Your task to perform on an android device: open app "DoorDash - Food Delivery" (install if not already installed) Image 0: 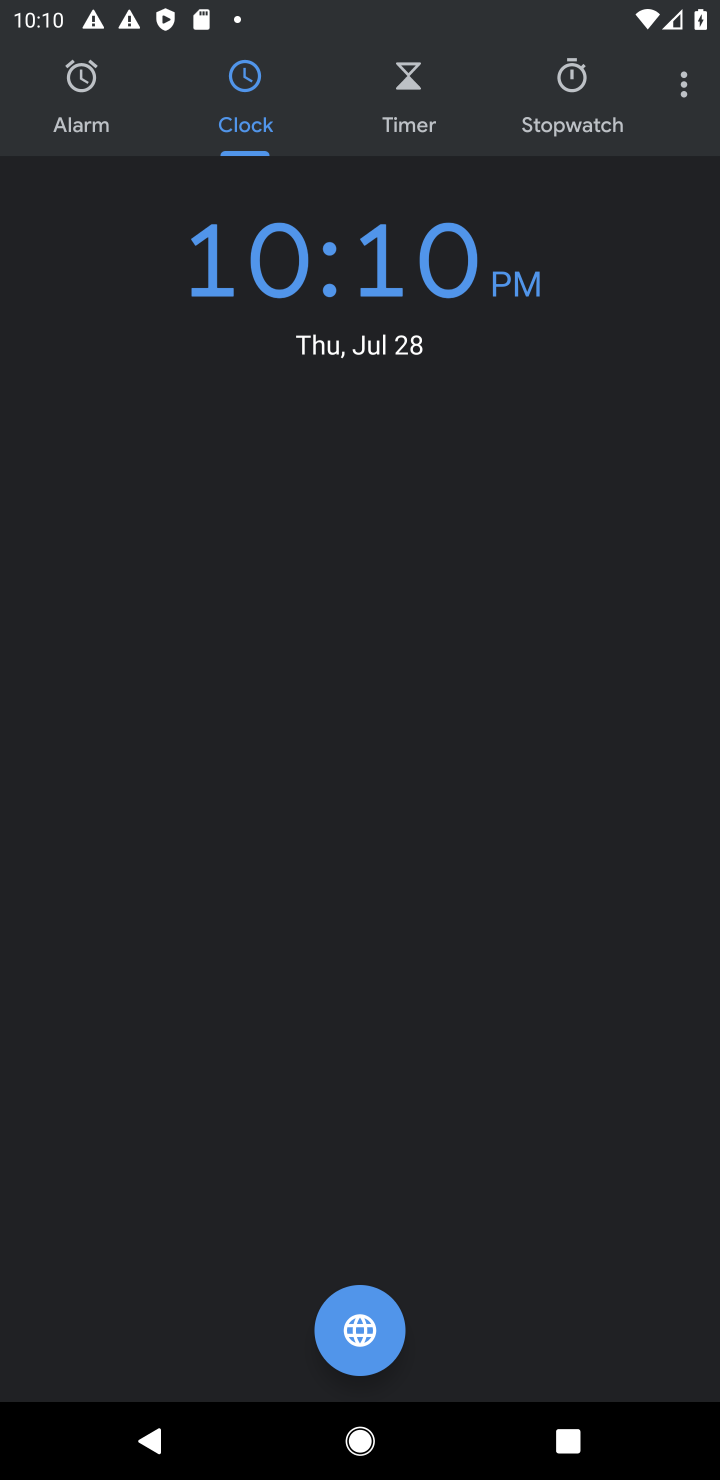
Step 0: press home button
Your task to perform on an android device: open app "DoorDash - Food Delivery" (install if not already installed) Image 1: 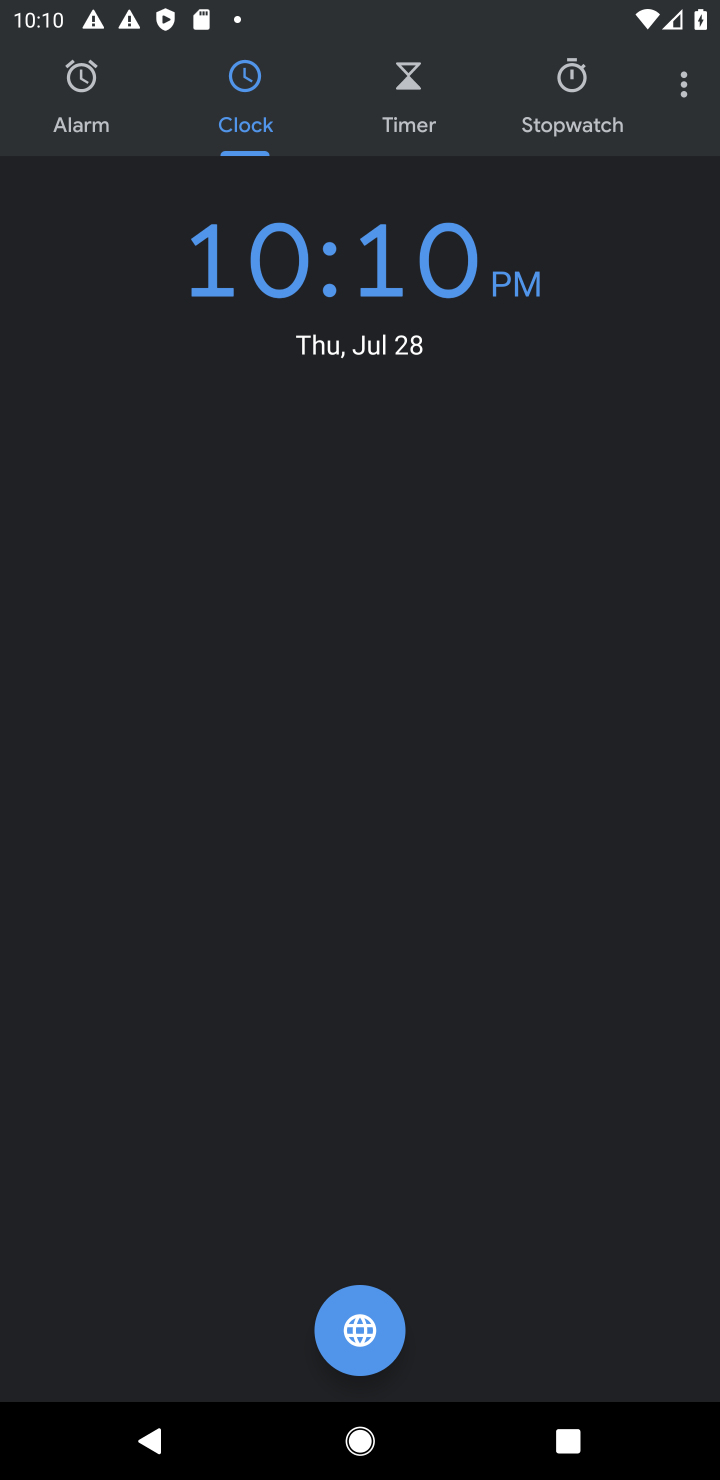
Step 1: drag from (295, 563) to (349, 463)
Your task to perform on an android device: open app "DoorDash - Food Delivery" (install if not already installed) Image 2: 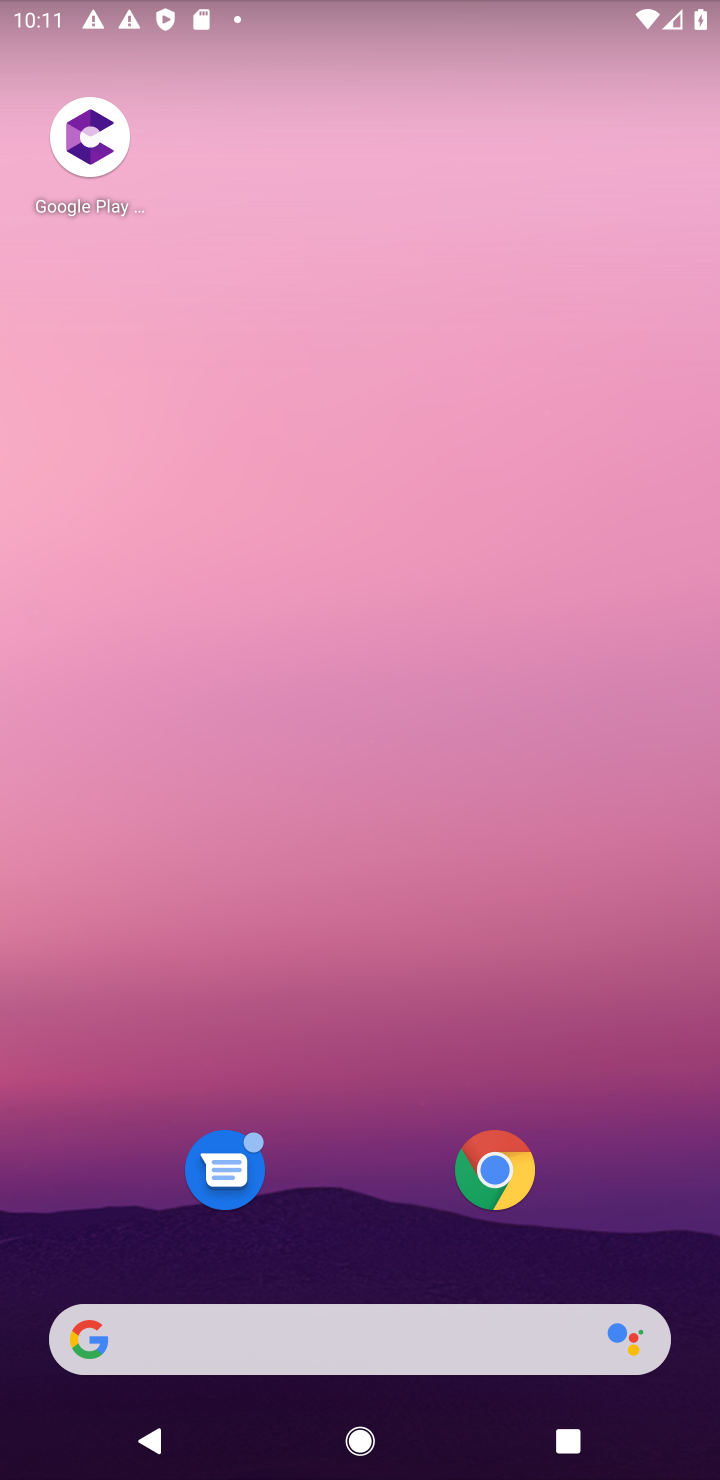
Step 2: press home button
Your task to perform on an android device: open app "DoorDash - Food Delivery" (install if not already installed) Image 3: 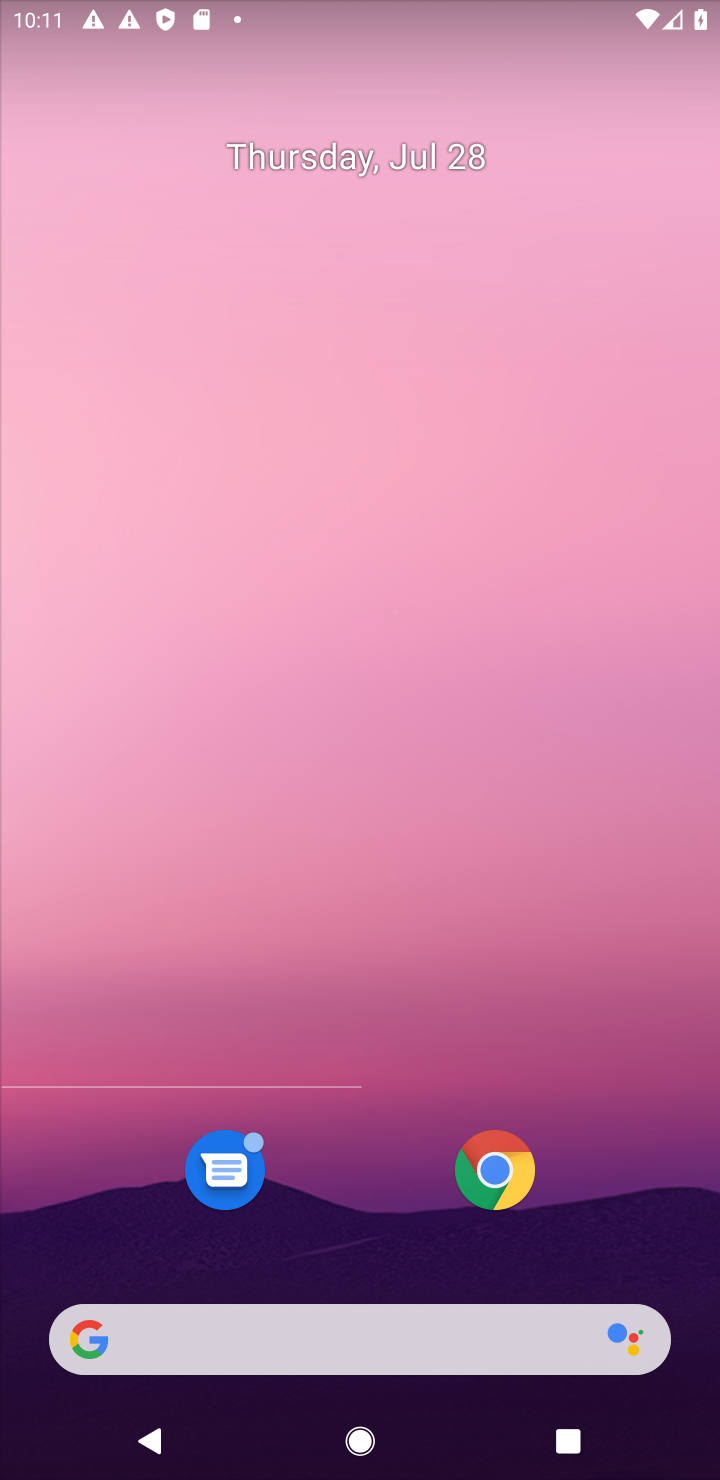
Step 3: drag from (306, 1272) to (334, 202)
Your task to perform on an android device: open app "DoorDash - Food Delivery" (install if not already installed) Image 4: 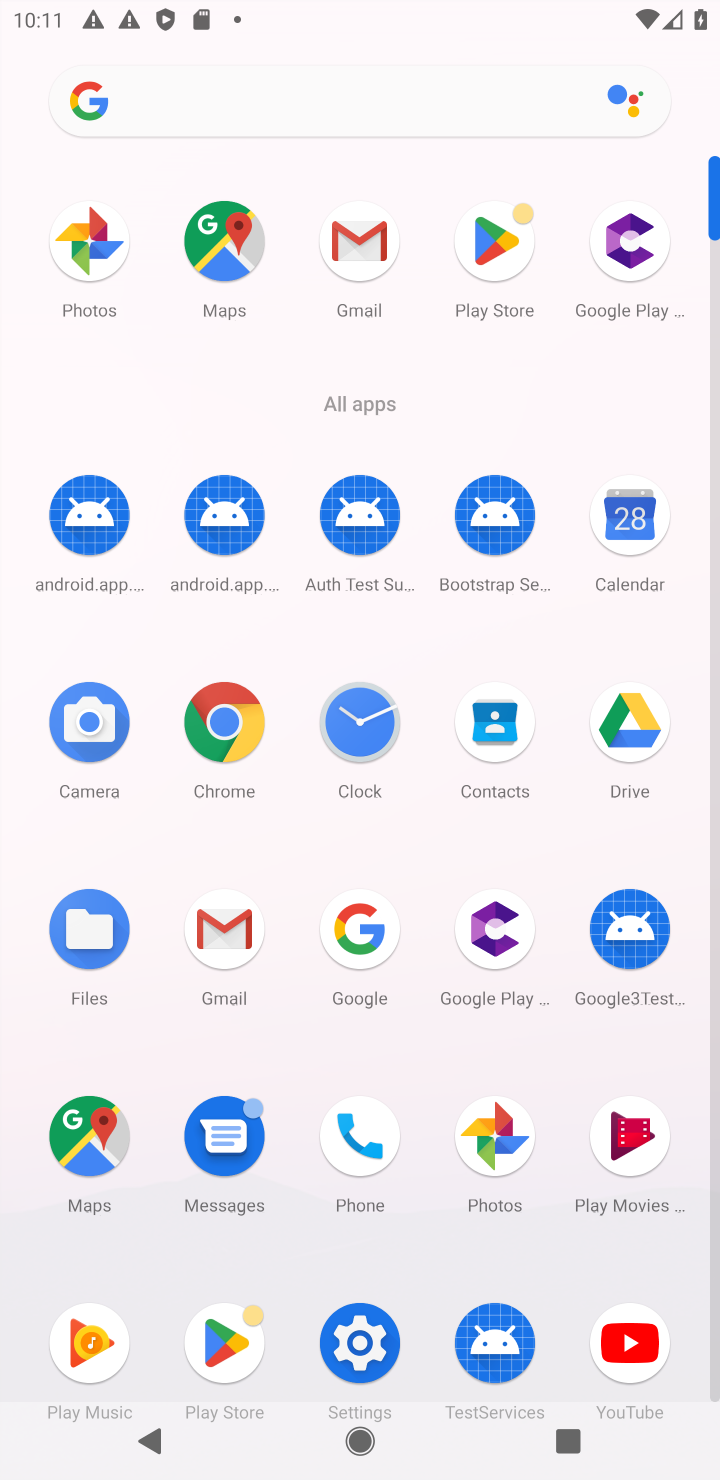
Step 4: click (497, 269)
Your task to perform on an android device: open app "DoorDash - Food Delivery" (install if not already installed) Image 5: 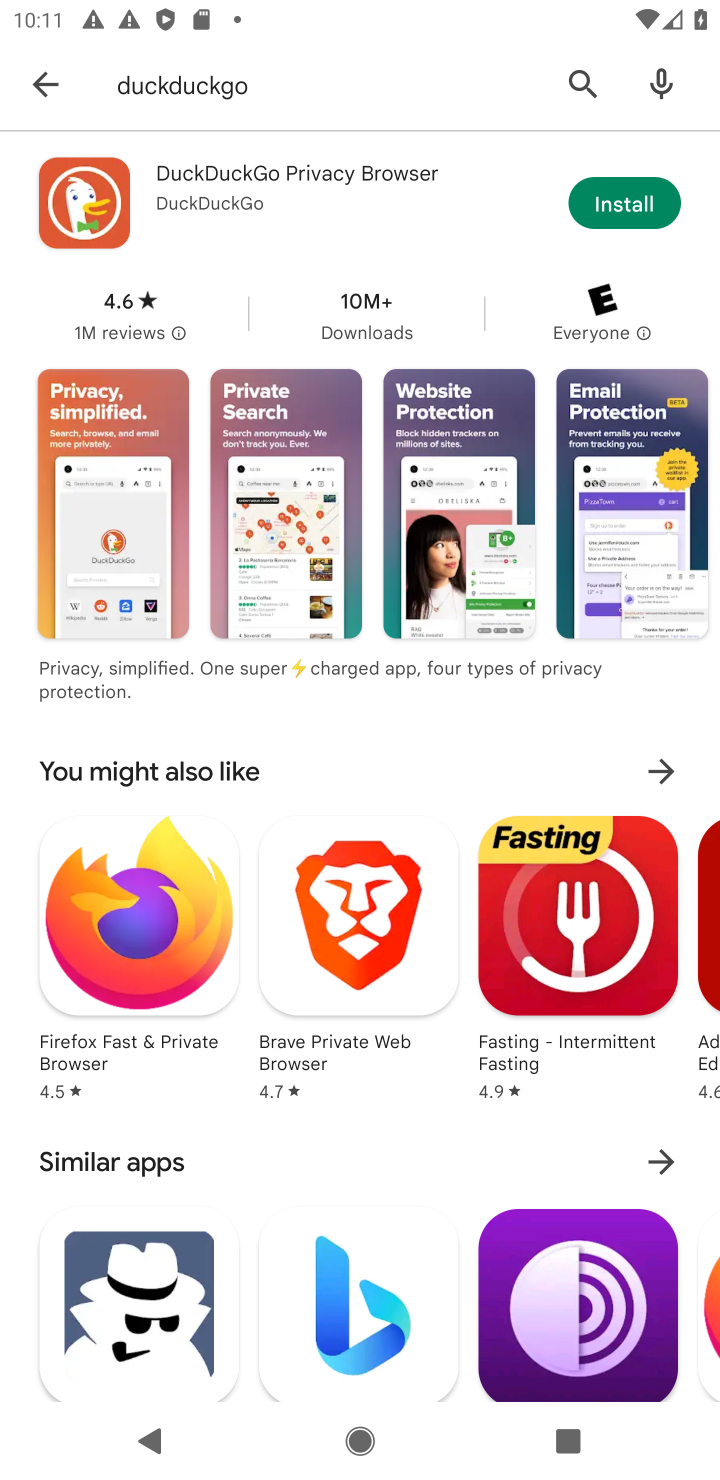
Step 5: click (312, 77)
Your task to perform on an android device: open app "DoorDash - Food Delivery" (install if not already installed) Image 6: 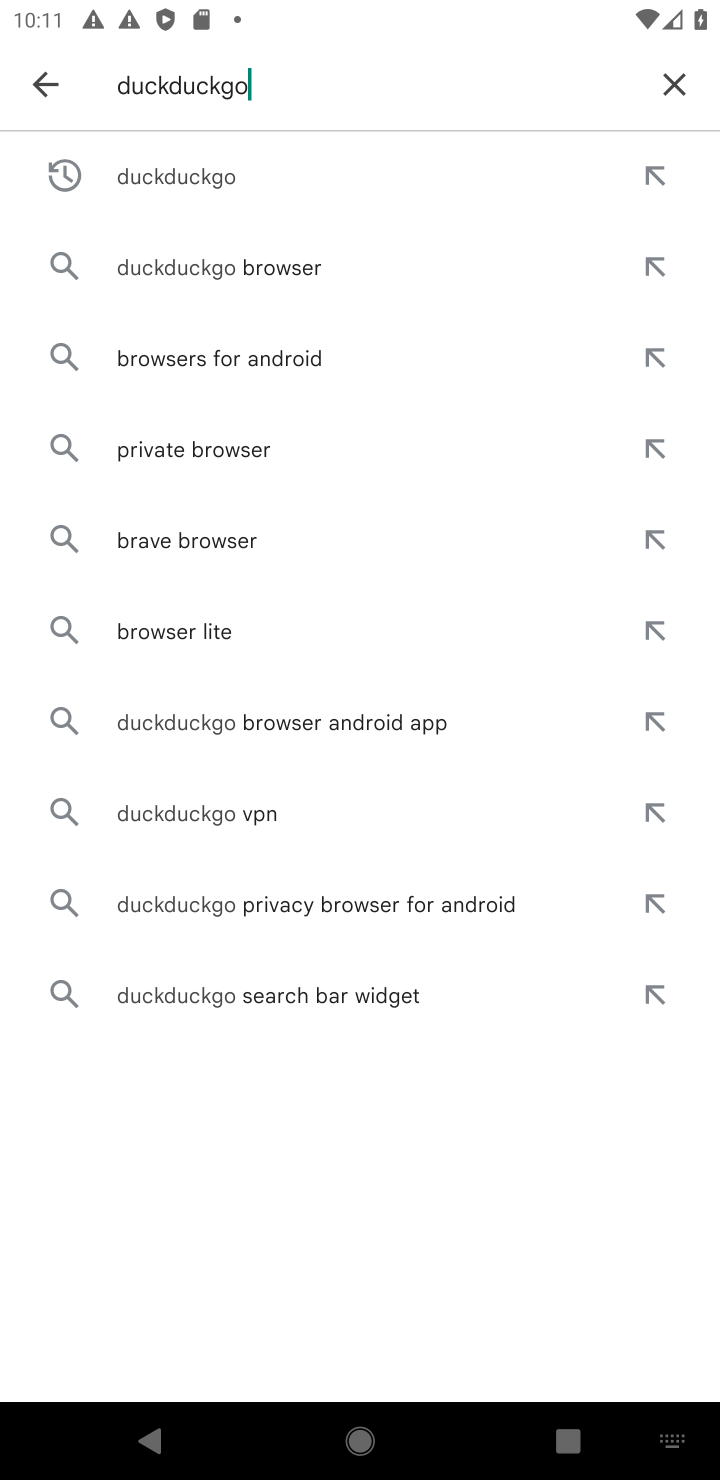
Step 6: click (670, 90)
Your task to perform on an android device: open app "DoorDash - Food Delivery" (install if not already installed) Image 7: 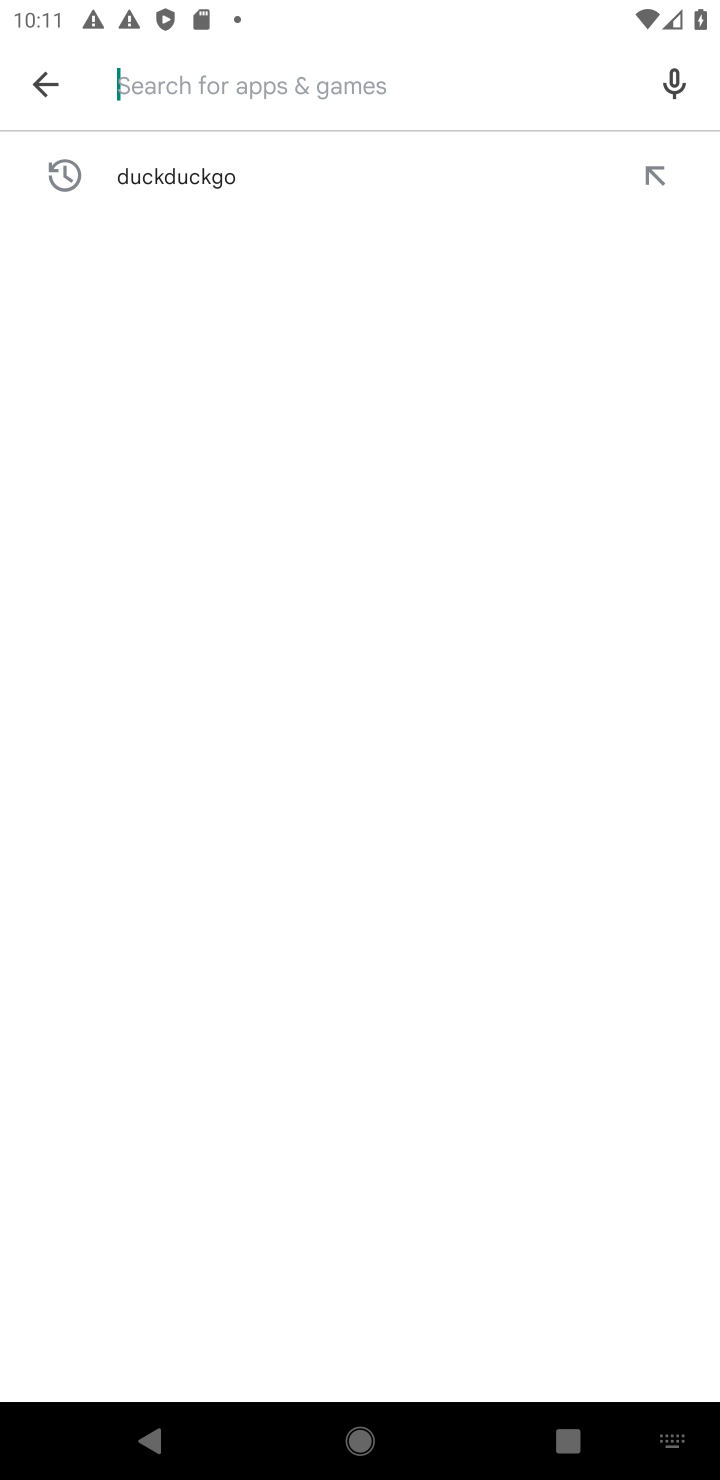
Step 7: type "DoorDash"
Your task to perform on an android device: open app "DoorDash - Food Delivery" (install if not already installed) Image 8: 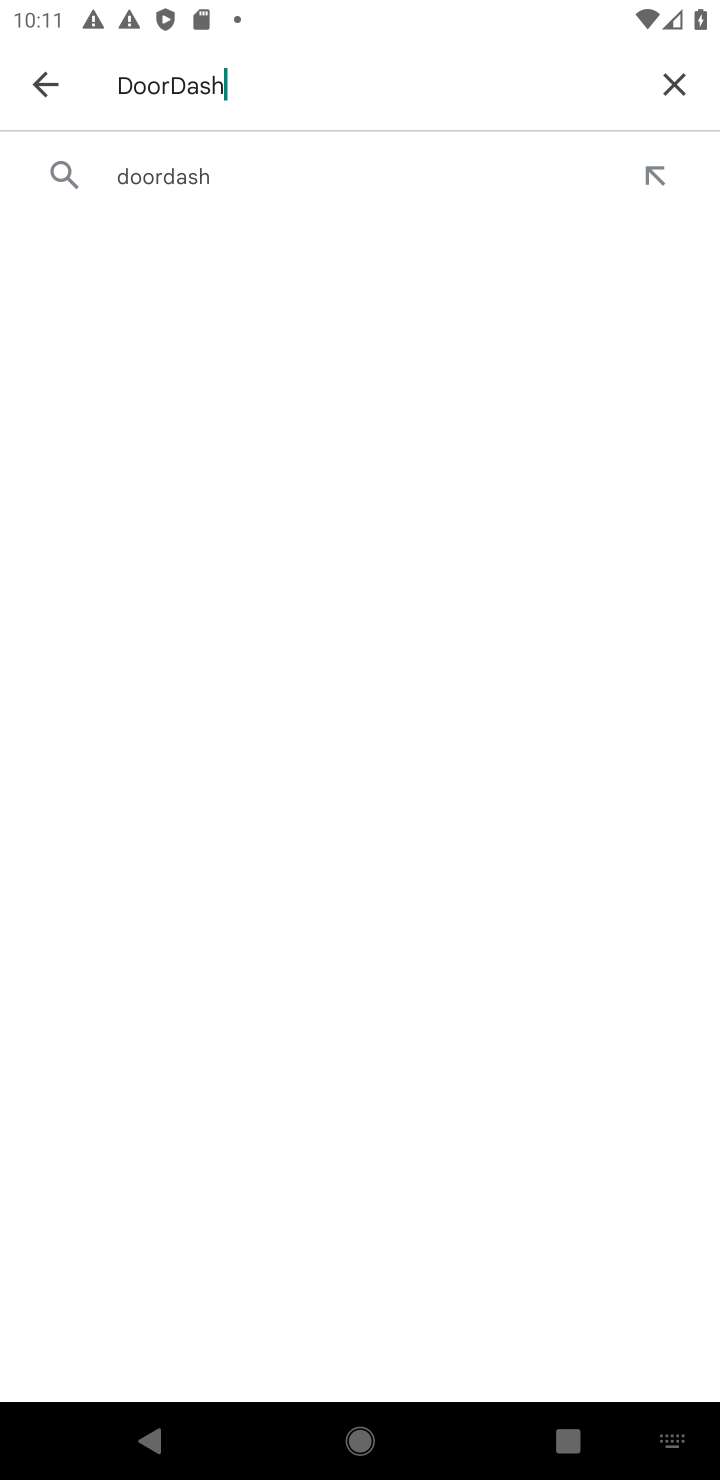
Step 8: click (260, 194)
Your task to perform on an android device: open app "DoorDash - Food Delivery" (install if not already installed) Image 9: 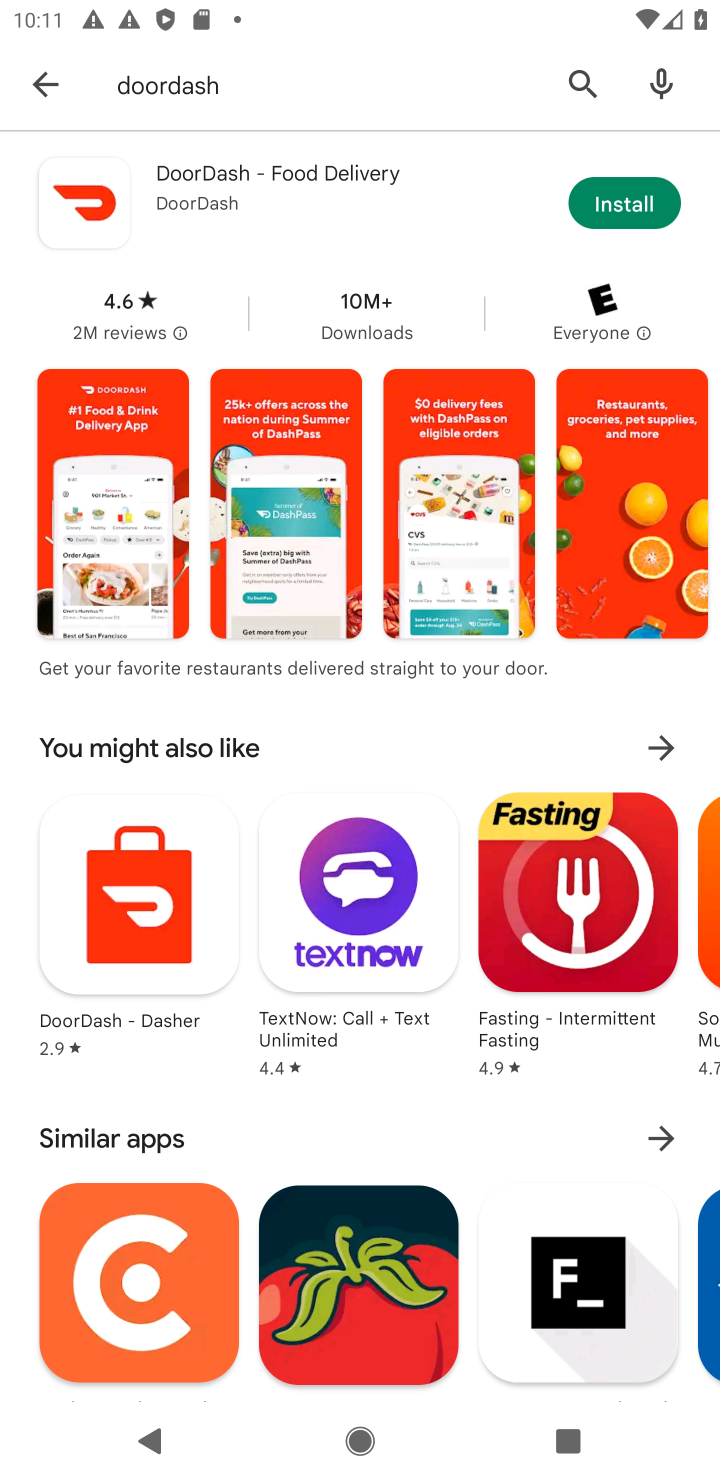
Step 9: click (621, 202)
Your task to perform on an android device: open app "DoorDash - Food Delivery" (install if not already installed) Image 10: 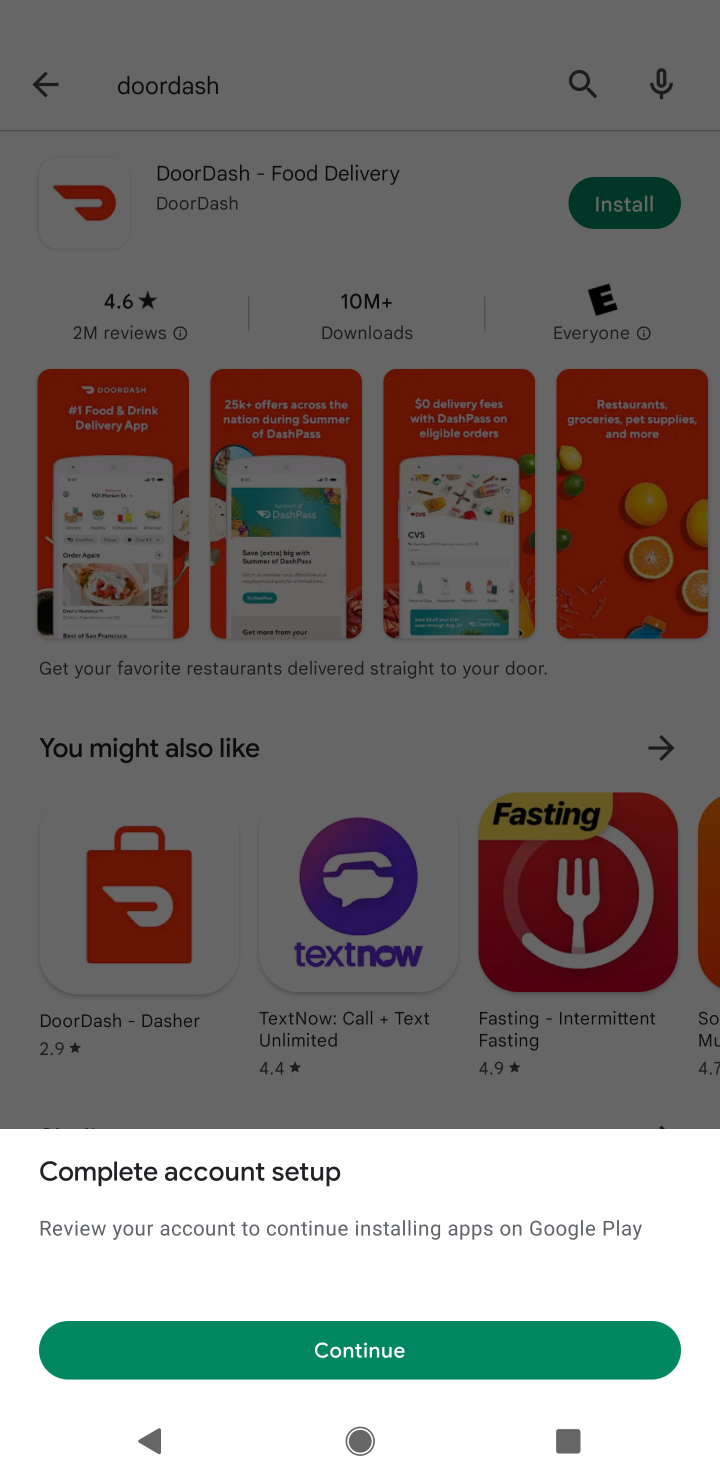
Step 10: click (282, 1360)
Your task to perform on an android device: open app "DoorDash - Food Delivery" (install if not already installed) Image 11: 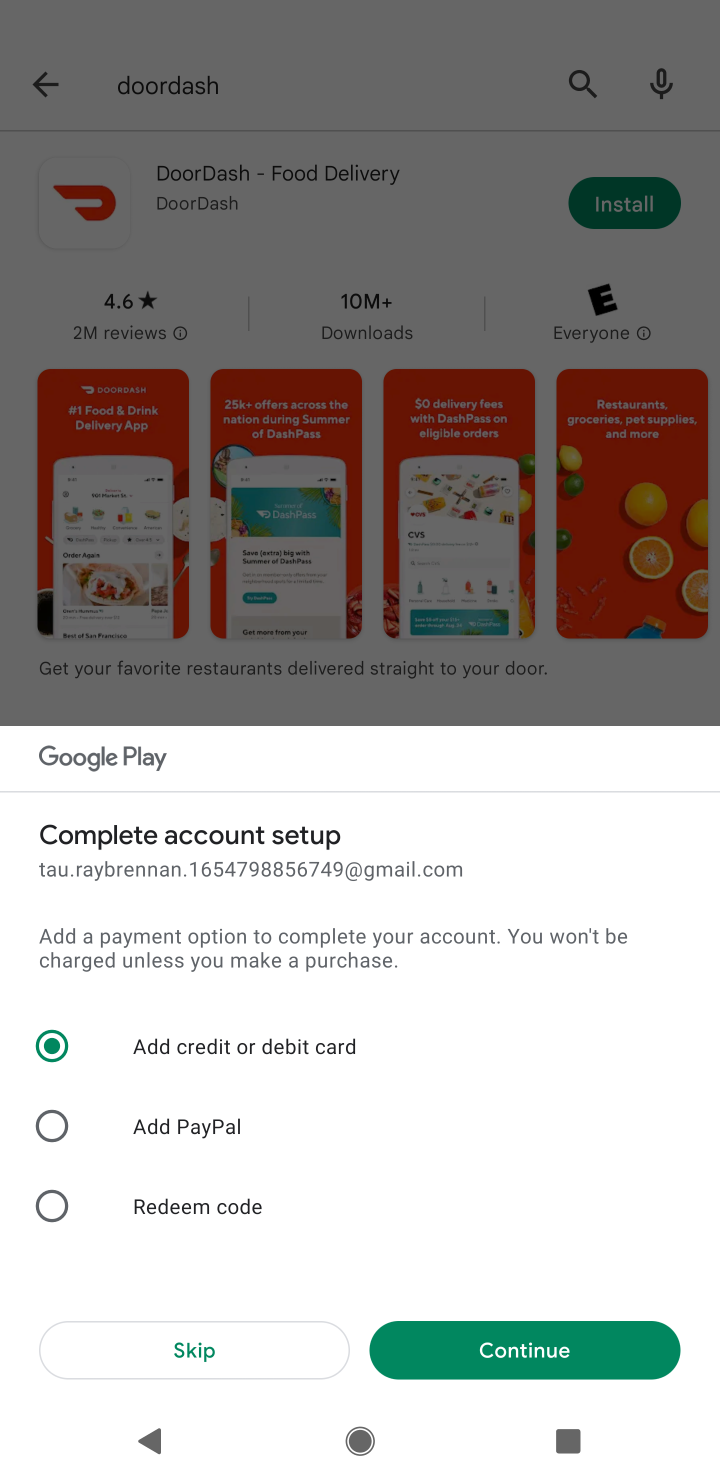
Step 11: click (155, 1346)
Your task to perform on an android device: open app "DoorDash - Food Delivery" (install if not already installed) Image 12: 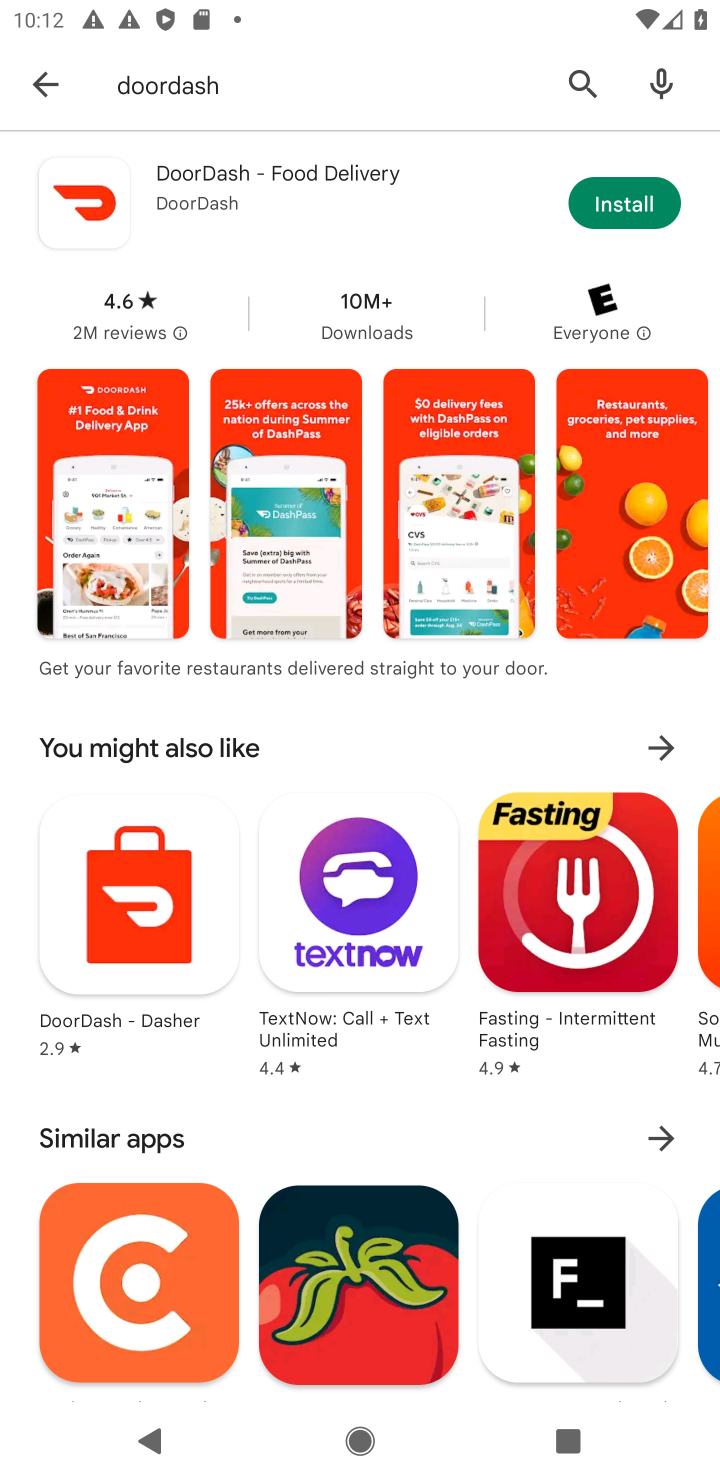
Step 12: click (633, 184)
Your task to perform on an android device: open app "DoorDash - Food Delivery" (install if not already installed) Image 13: 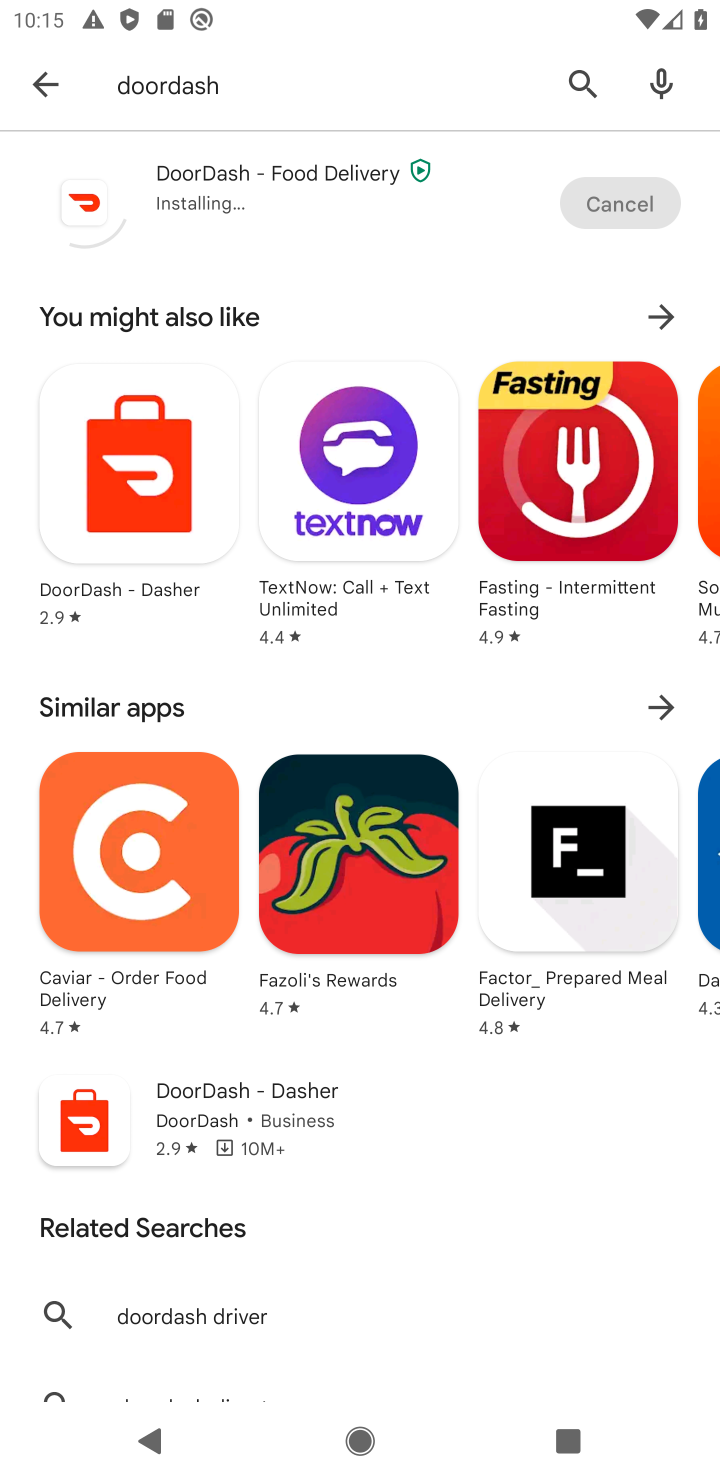
Step 13: click (260, 204)
Your task to perform on an android device: open app "DoorDash - Food Delivery" (install if not already installed) Image 14: 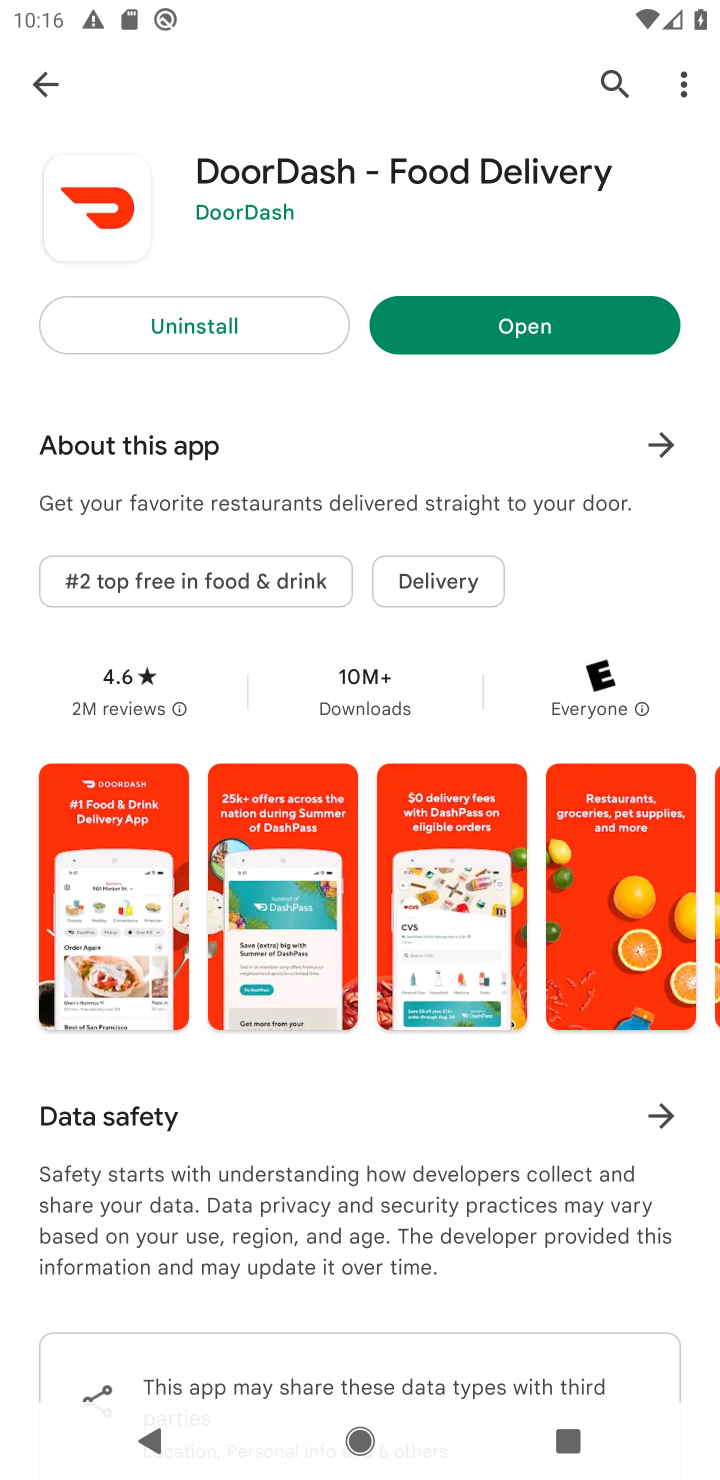
Step 14: click (534, 328)
Your task to perform on an android device: open app "DoorDash - Food Delivery" (install if not already installed) Image 15: 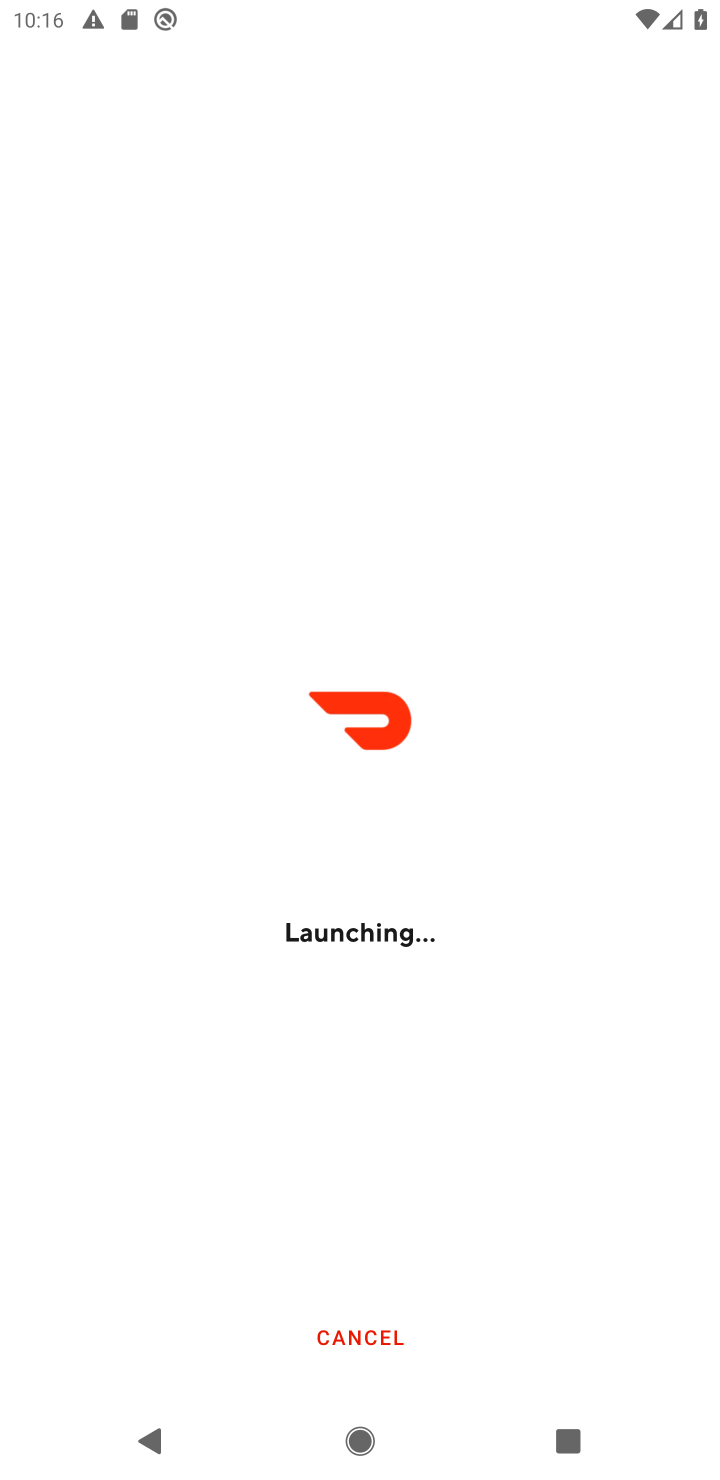
Step 15: task complete